Your task to perform on an android device: View the shopping cart on newegg.com. Image 0: 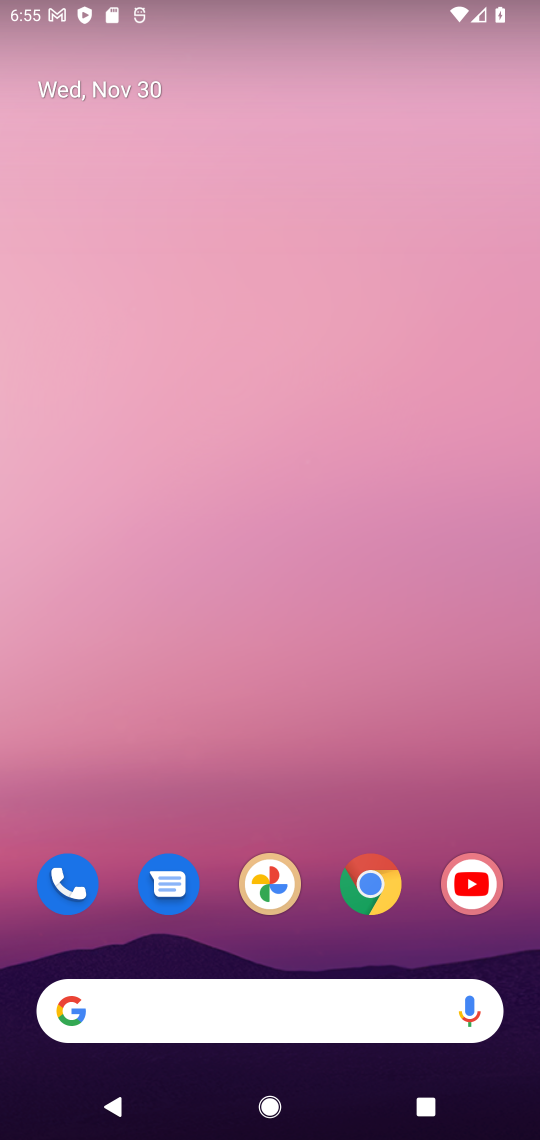
Step 0: click (374, 887)
Your task to perform on an android device: View the shopping cart on newegg.com. Image 1: 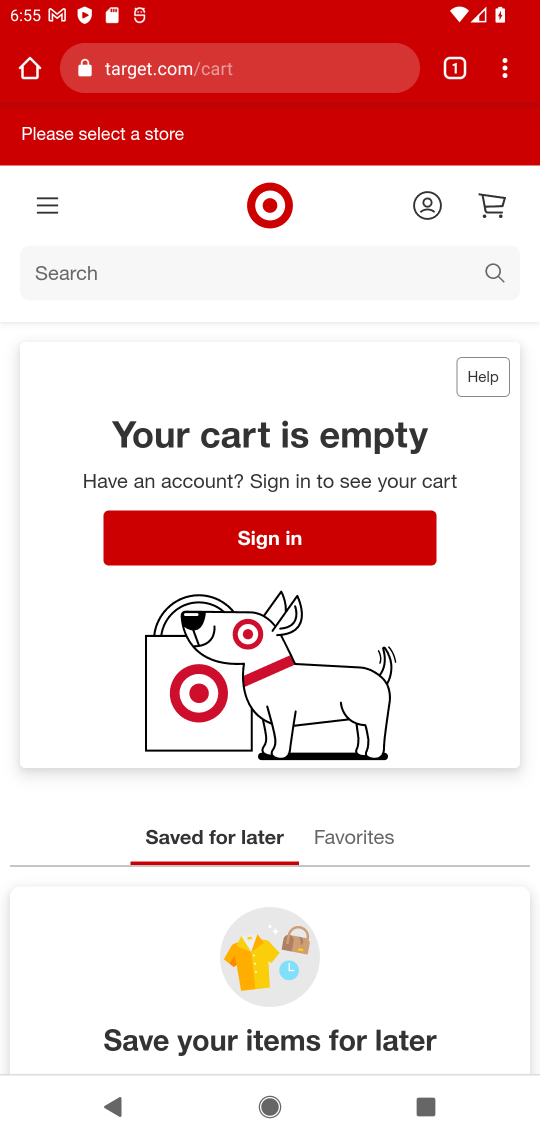
Step 1: click (194, 71)
Your task to perform on an android device: View the shopping cart on newegg.com. Image 2: 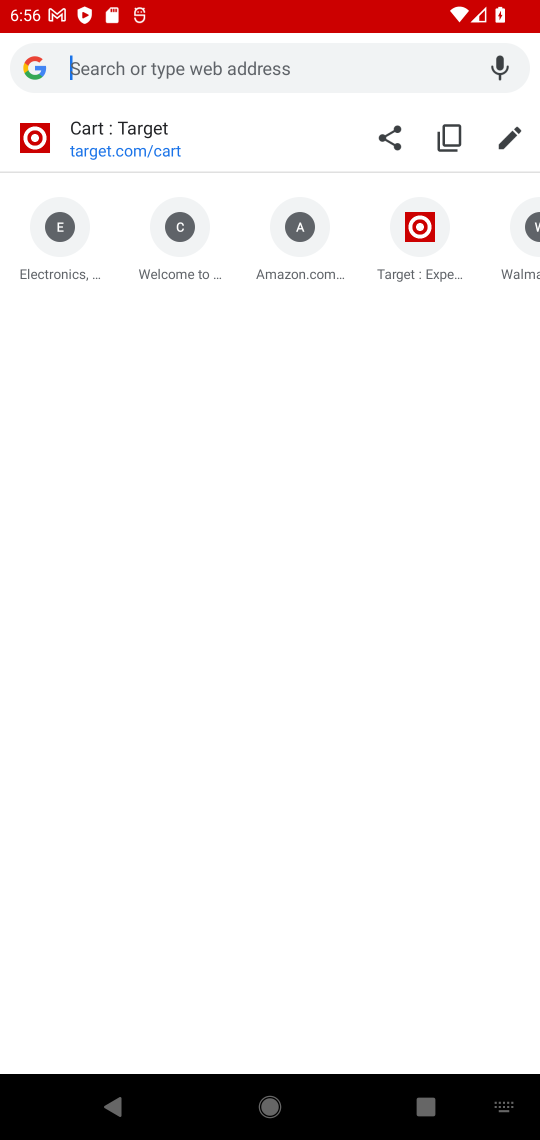
Step 2: type "newegg.com"
Your task to perform on an android device: View the shopping cart on newegg.com. Image 3: 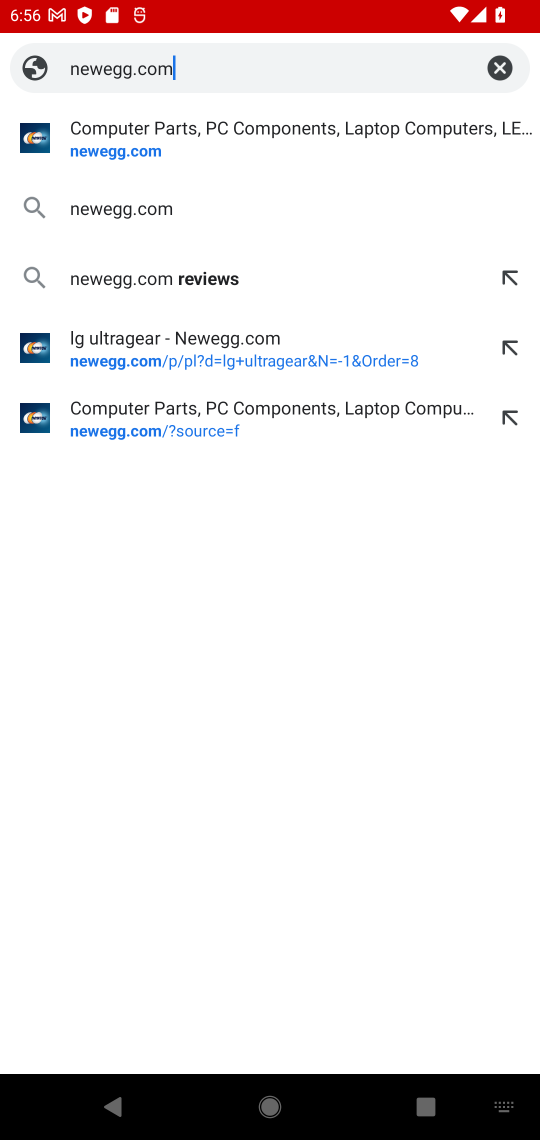
Step 3: click (108, 140)
Your task to perform on an android device: View the shopping cart on newegg.com. Image 4: 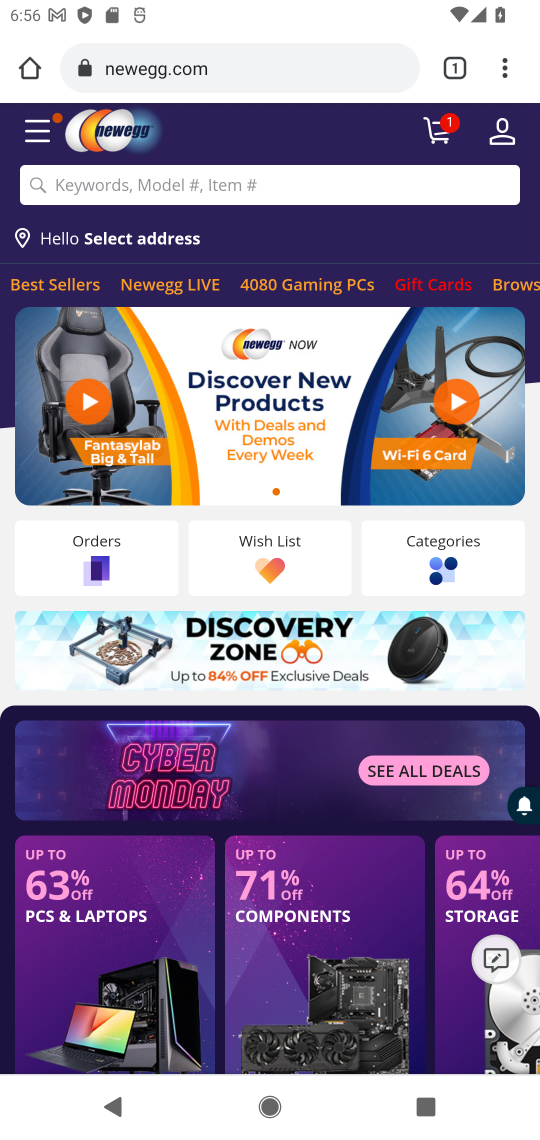
Step 4: click (453, 133)
Your task to perform on an android device: View the shopping cart on newegg.com. Image 5: 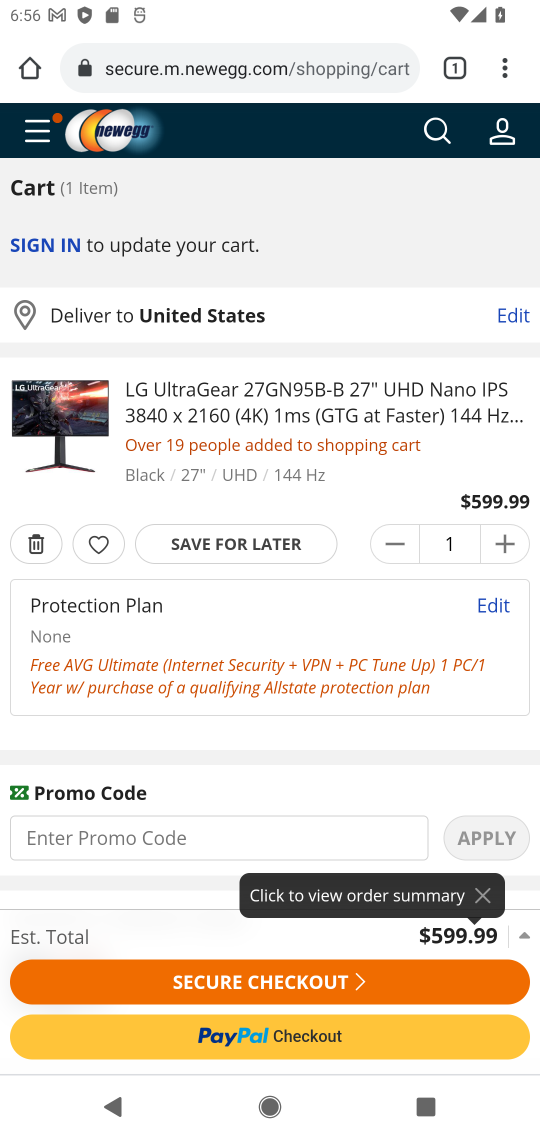
Step 5: task complete